Your task to perform on an android device: turn off notifications in google photos Image 0: 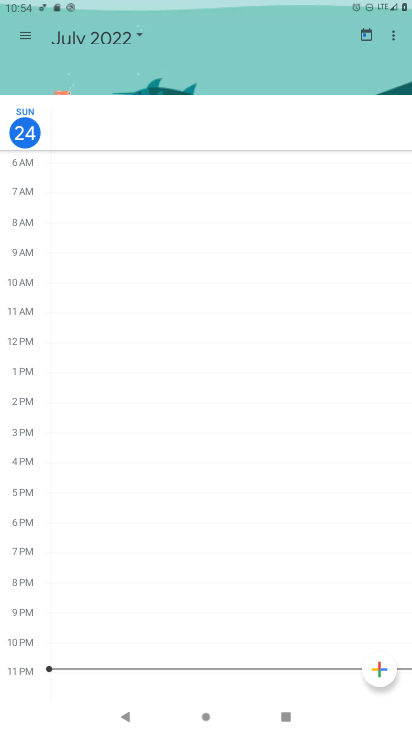
Step 0: press home button
Your task to perform on an android device: turn off notifications in google photos Image 1: 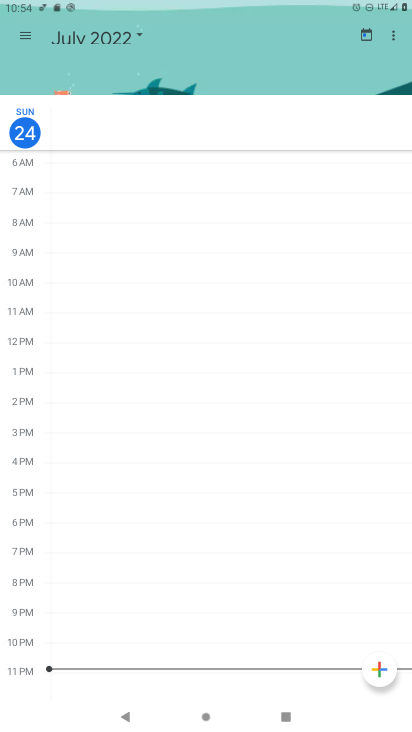
Step 1: drag from (380, 680) to (168, 21)
Your task to perform on an android device: turn off notifications in google photos Image 2: 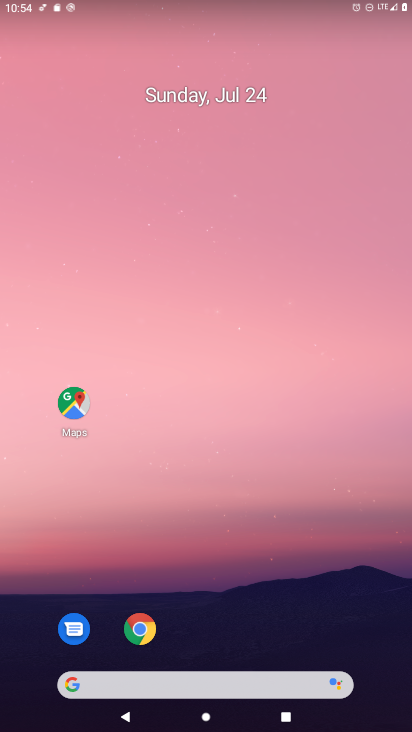
Step 2: drag from (364, 618) to (102, 15)
Your task to perform on an android device: turn off notifications in google photos Image 3: 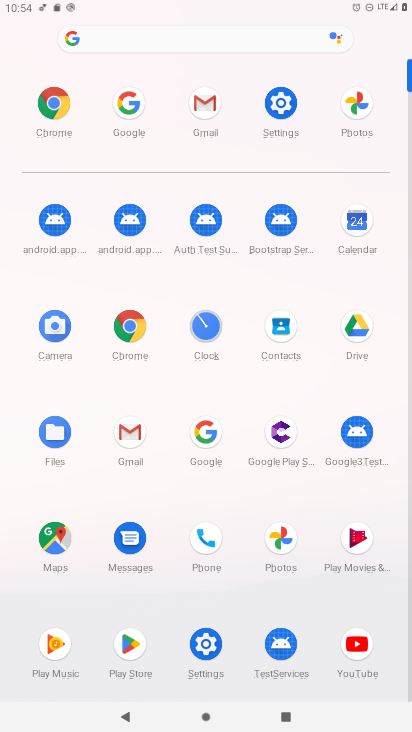
Step 3: click (257, 552)
Your task to perform on an android device: turn off notifications in google photos Image 4: 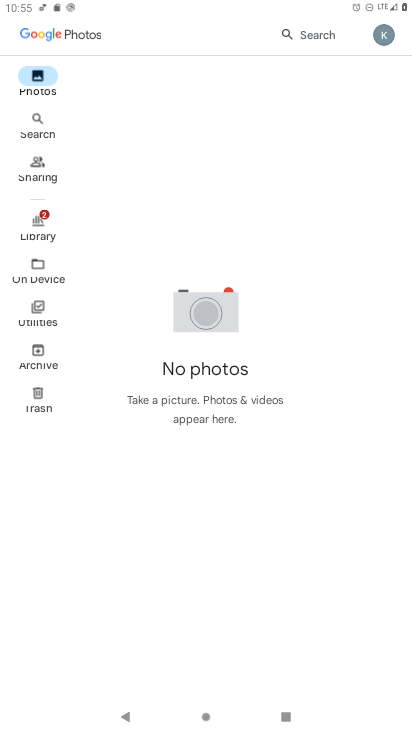
Step 4: click (377, 34)
Your task to perform on an android device: turn off notifications in google photos Image 5: 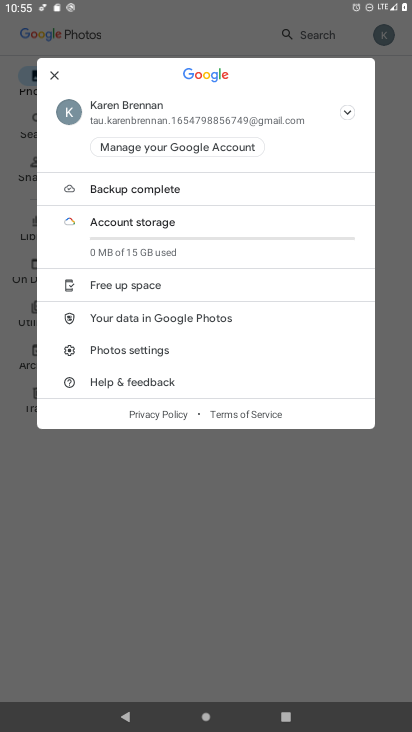
Step 5: click (127, 350)
Your task to perform on an android device: turn off notifications in google photos Image 6: 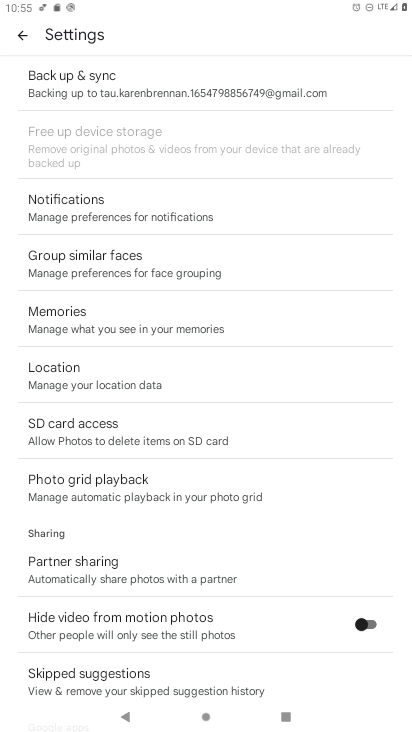
Step 6: click (140, 192)
Your task to perform on an android device: turn off notifications in google photos Image 7: 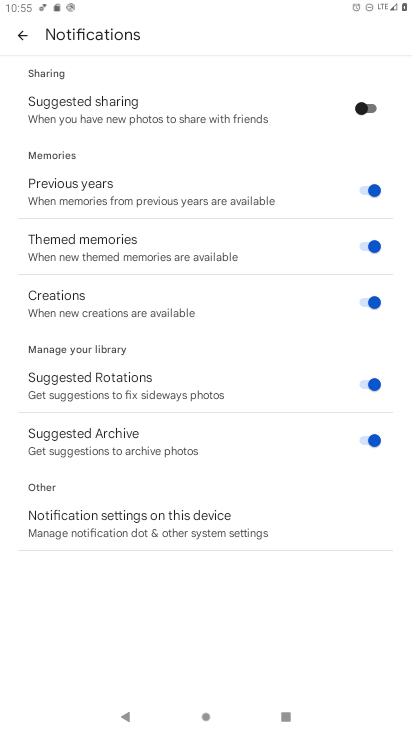
Step 7: task complete